Your task to perform on an android device: turn on airplane mode Image 0: 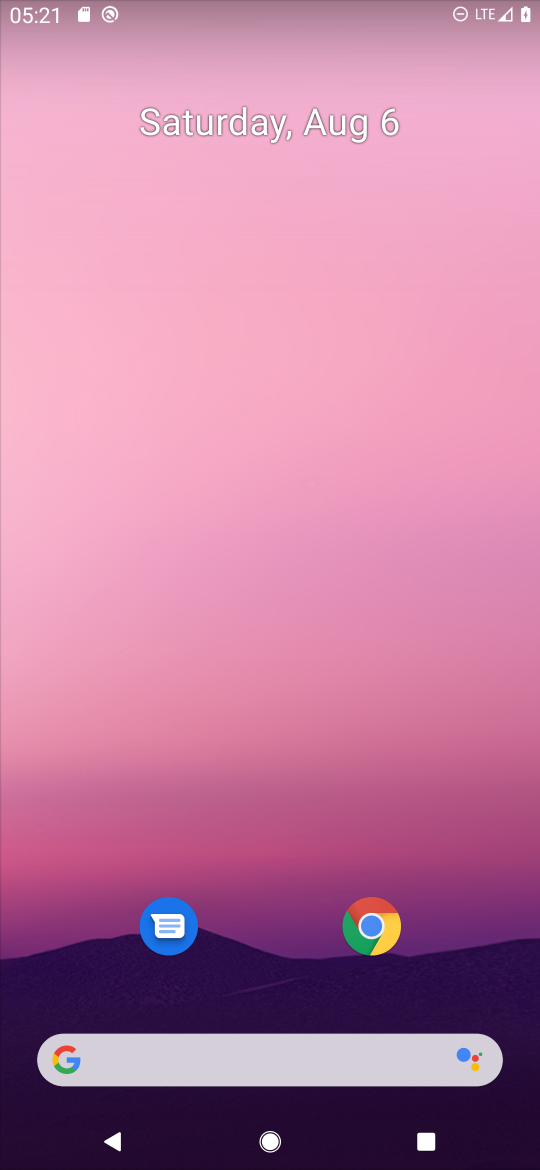
Step 0: drag from (316, 670) to (328, 440)
Your task to perform on an android device: turn on airplane mode Image 1: 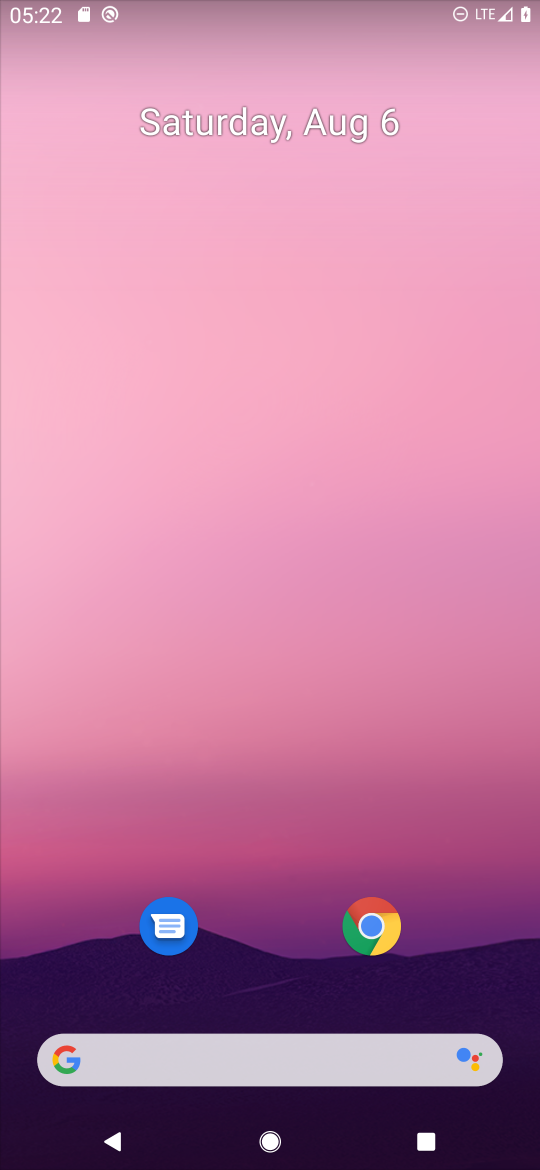
Step 1: drag from (280, 915) to (318, 262)
Your task to perform on an android device: turn on airplane mode Image 2: 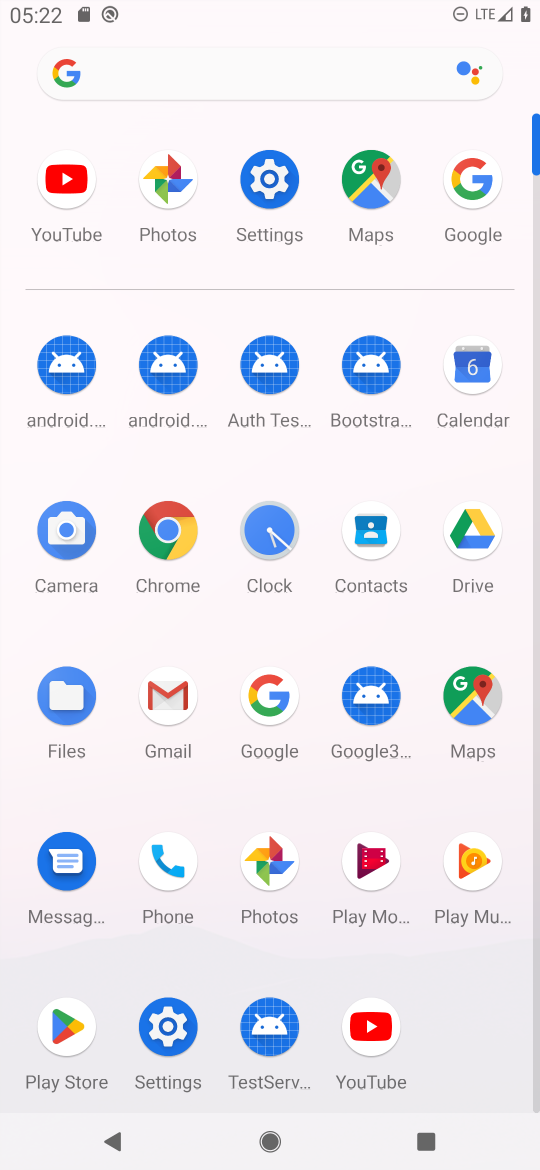
Step 2: click (275, 197)
Your task to perform on an android device: turn on airplane mode Image 3: 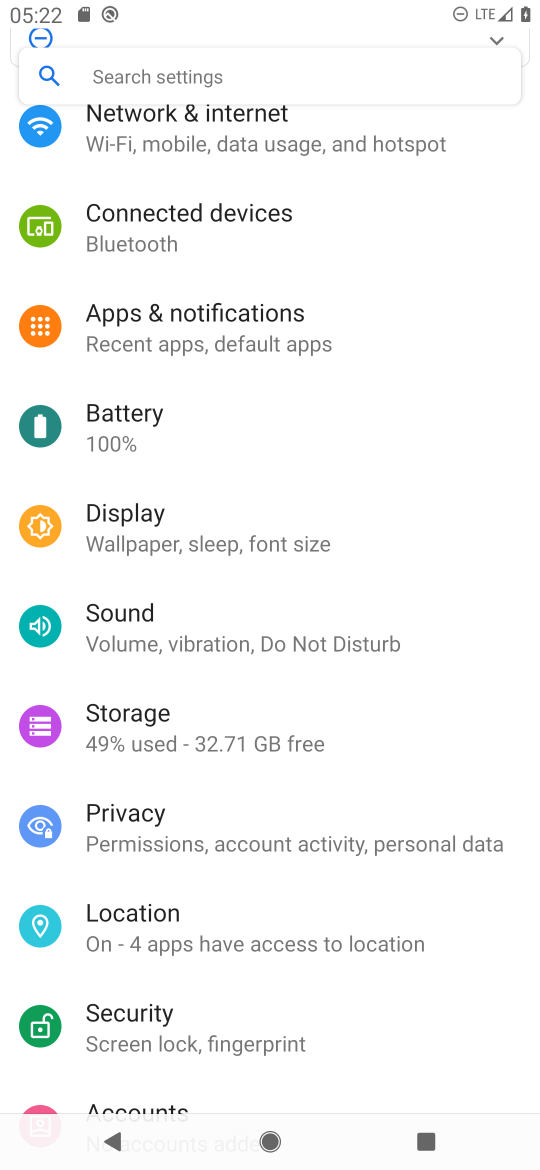
Step 3: drag from (300, 241) to (326, 750)
Your task to perform on an android device: turn on airplane mode Image 4: 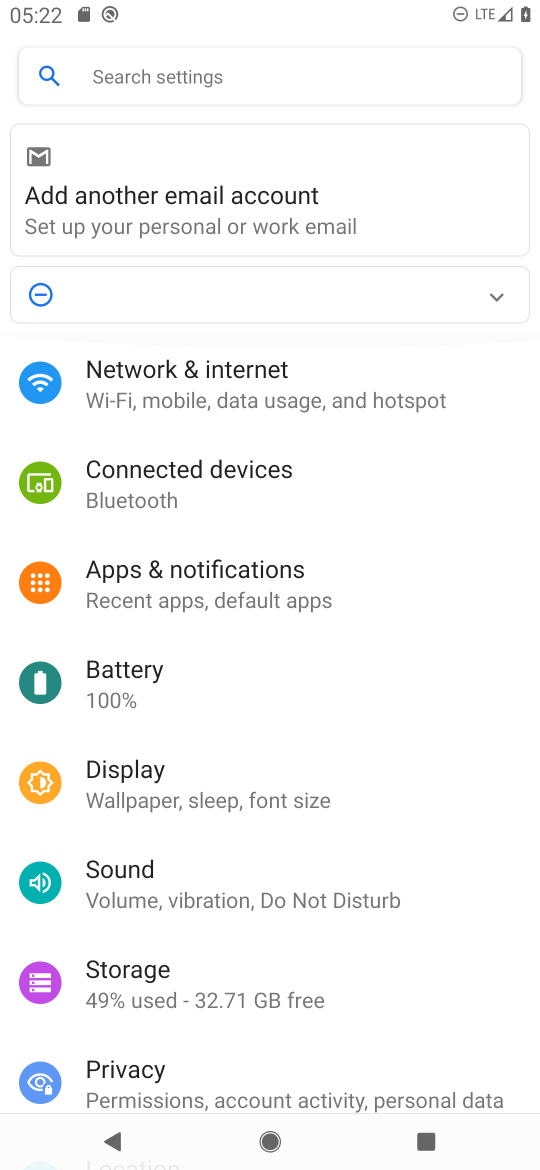
Step 4: click (192, 382)
Your task to perform on an android device: turn on airplane mode Image 5: 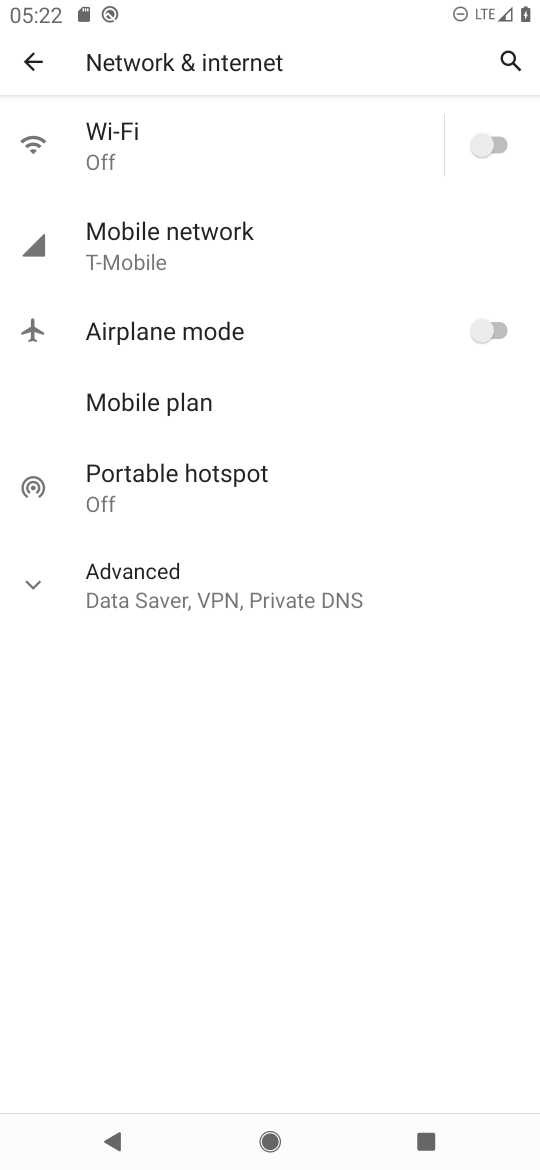
Step 5: click (502, 336)
Your task to perform on an android device: turn on airplane mode Image 6: 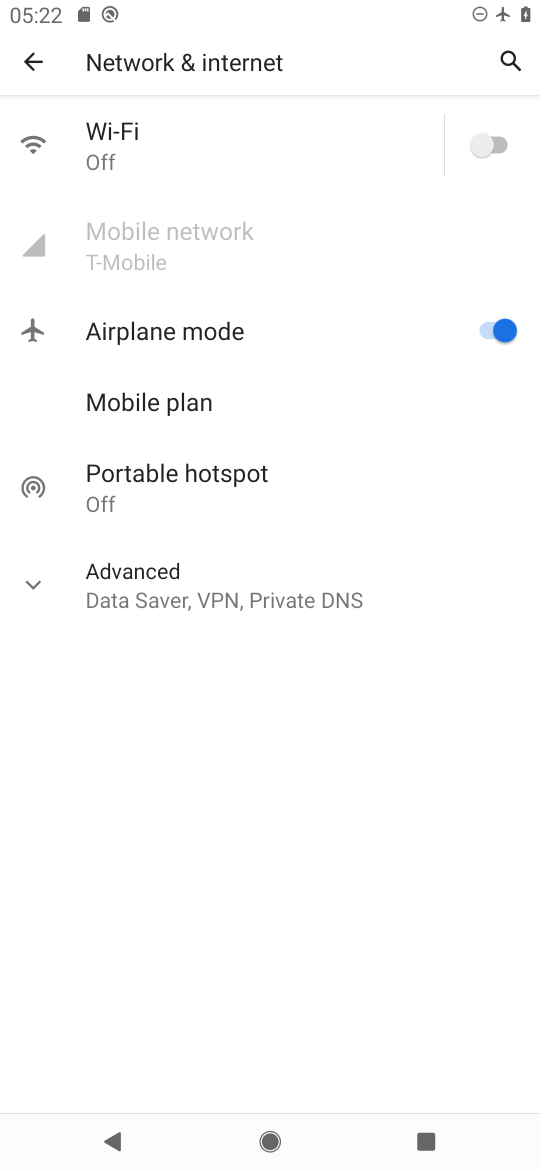
Step 6: task complete